Your task to perform on an android device: snooze an email in the gmail app Image 0: 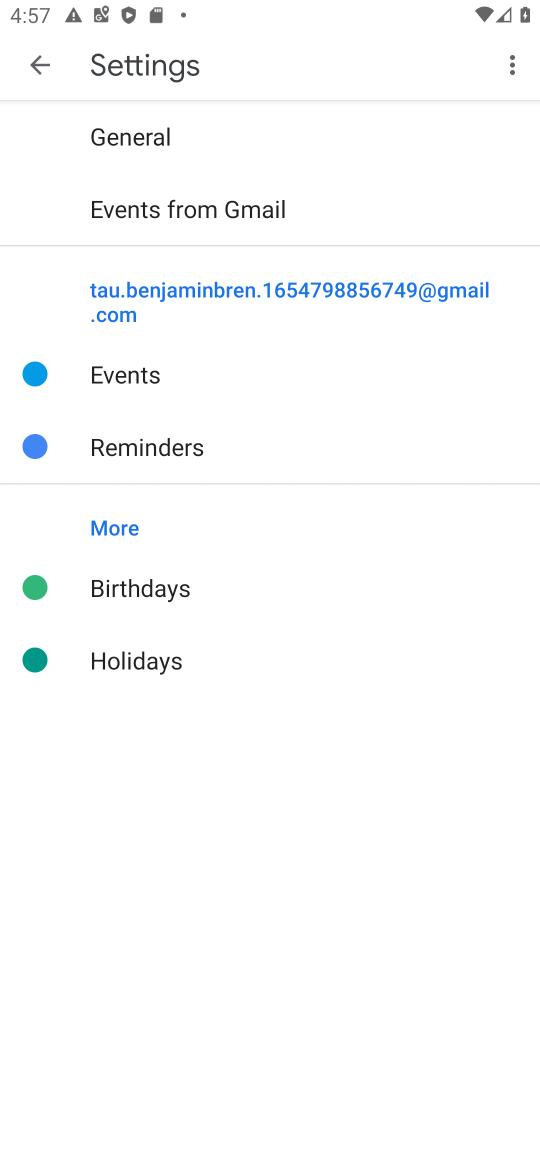
Step 0: press home button
Your task to perform on an android device: snooze an email in the gmail app Image 1: 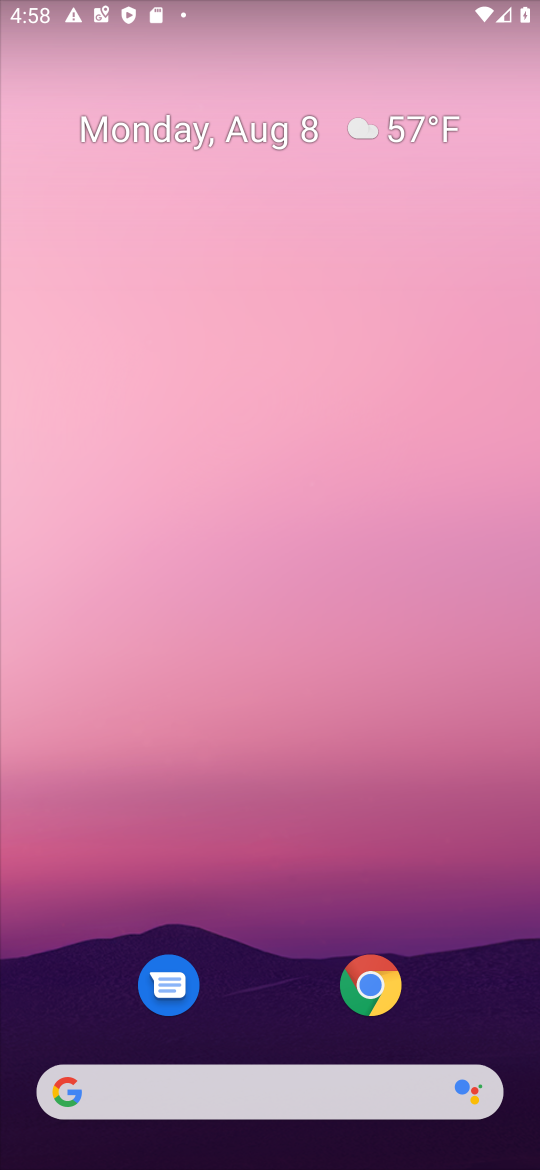
Step 1: drag from (275, 869) to (327, 72)
Your task to perform on an android device: snooze an email in the gmail app Image 2: 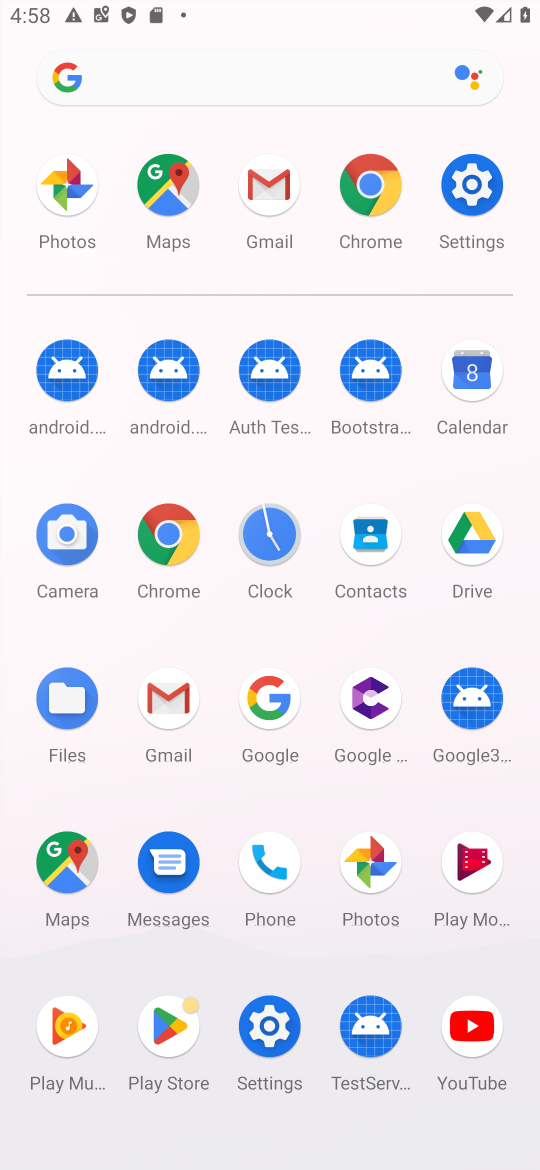
Step 2: click (158, 702)
Your task to perform on an android device: snooze an email in the gmail app Image 3: 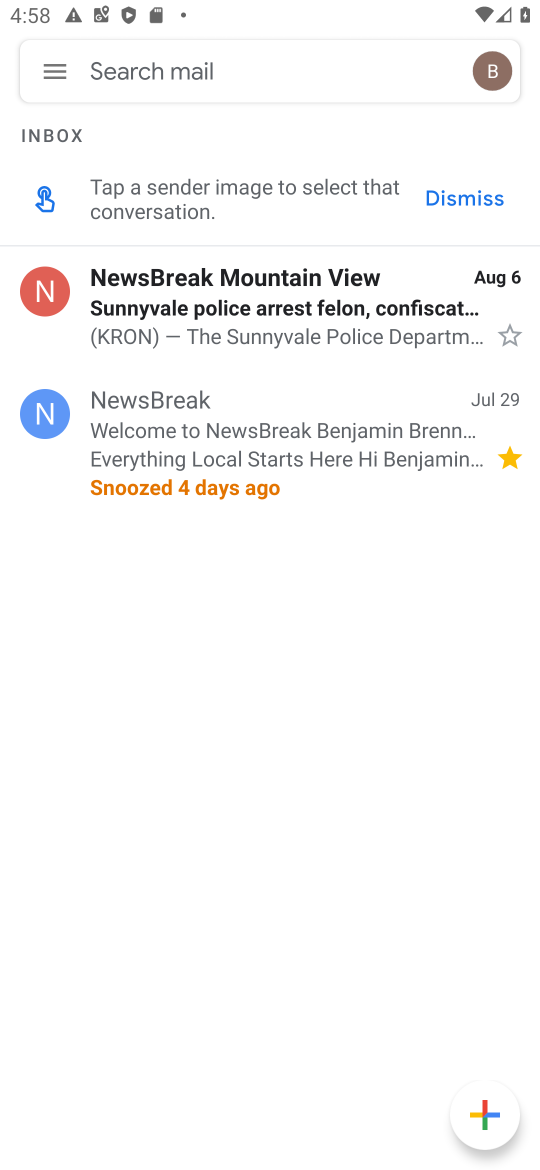
Step 3: task complete